Your task to perform on an android device: open wifi settings Image 0: 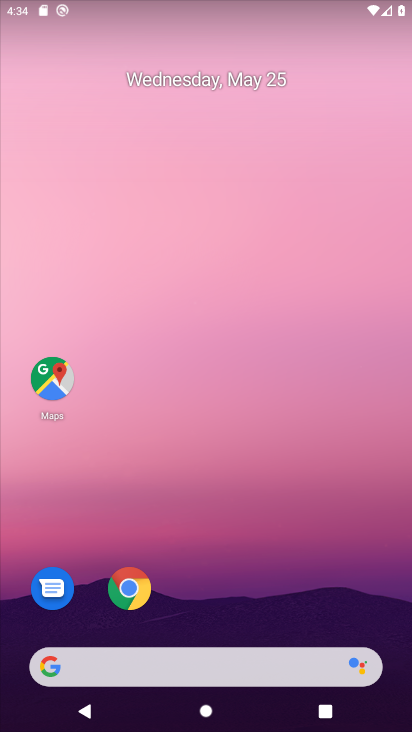
Step 0: drag from (201, 637) to (271, 152)
Your task to perform on an android device: open wifi settings Image 1: 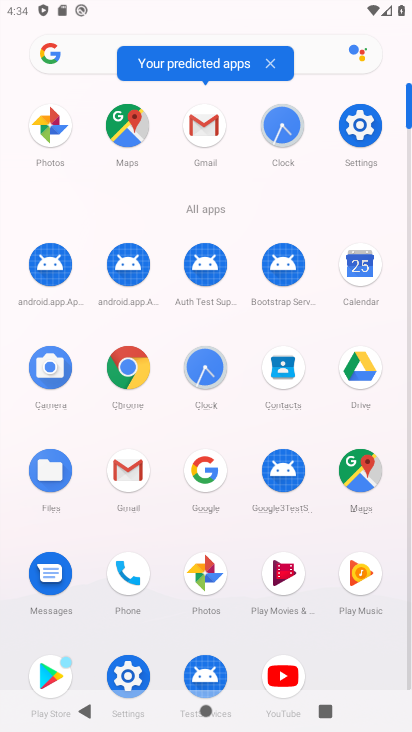
Step 1: click (120, 672)
Your task to perform on an android device: open wifi settings Image 2: 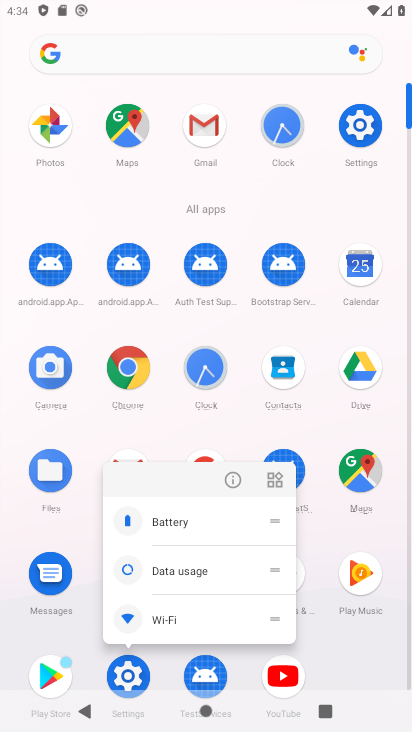
Step 2: click (133, 676)
Your task to perform on an android device: open wifi settings Image 3: 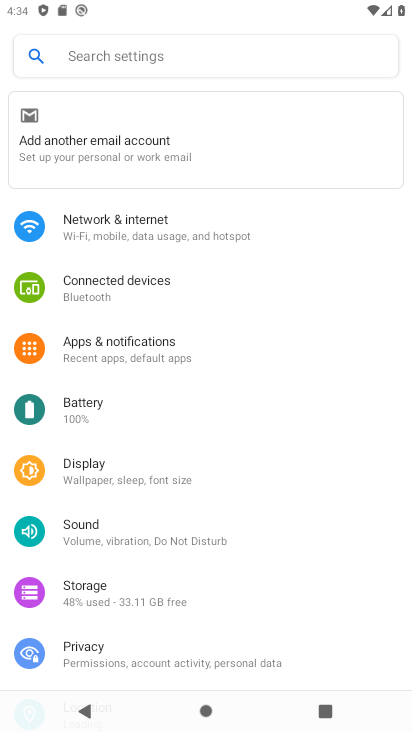
Step 3: click (208, 230)
Your task to perform on an android device: open wifi settings Image 4: 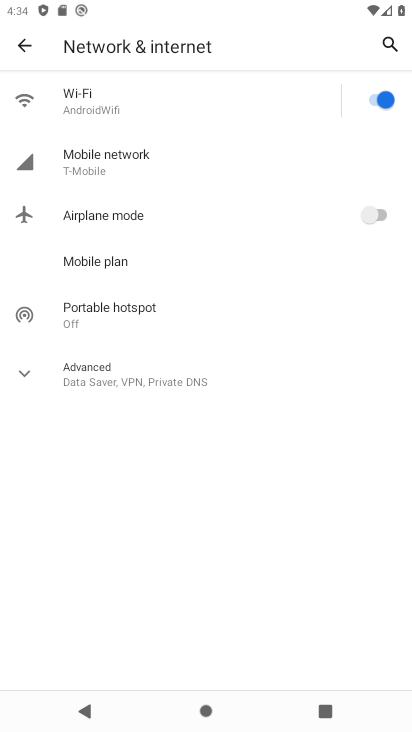
Step 4: click (132, 114)
Your task to perform on an android device: open wifi settings Image 5: 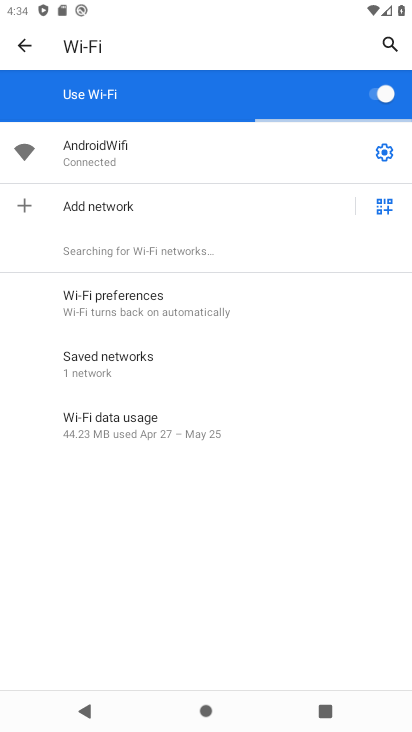
Step 5: task complete